Your task to perform on an android device: turn off translation in the chrome app Image 0: 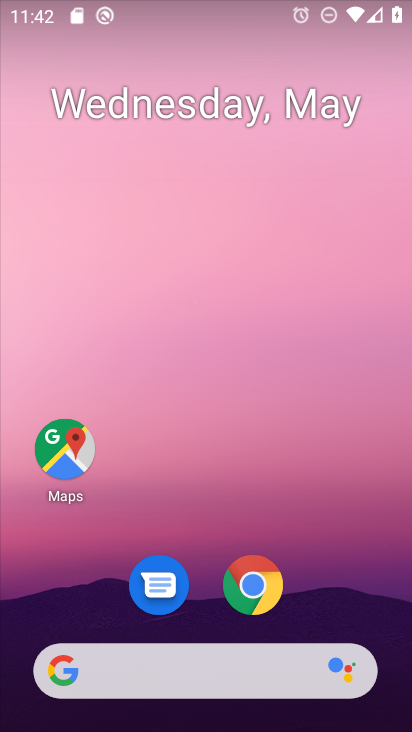
Step 0: click (248, 579)
Your task to perform on an android device: turn off translation in the chrome app Image 1: 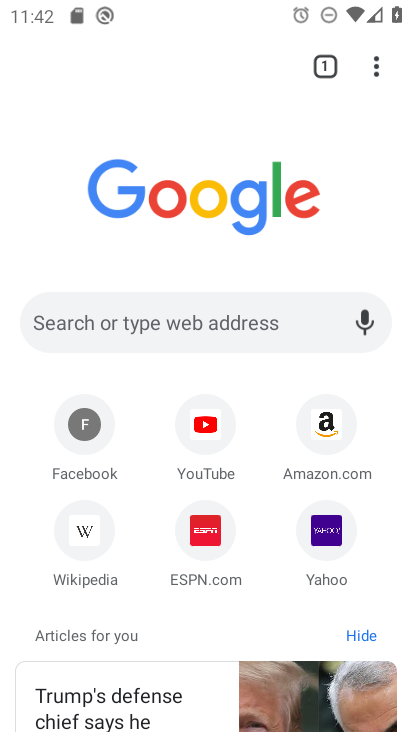
Step 1: click (373, 64)
Your task to perform on an android device: turn off translation in the chrome app Image 2: 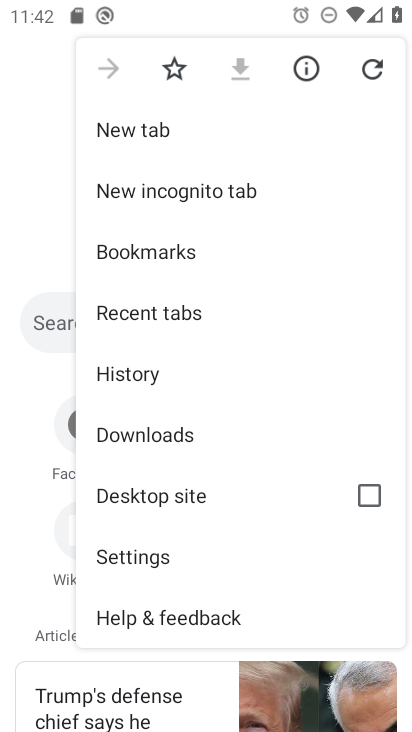
Step 2: click (175, 557)
Your task to perform on an android device: turn off translation in the chrome app Image 3: 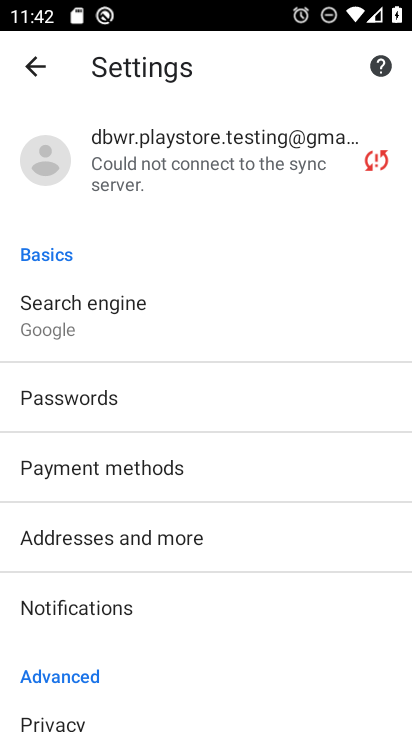
Step 3: drag from (268, 585) to (272, 273)
Your task to perform on an android device: turn off translation in the chrome app Image 4: 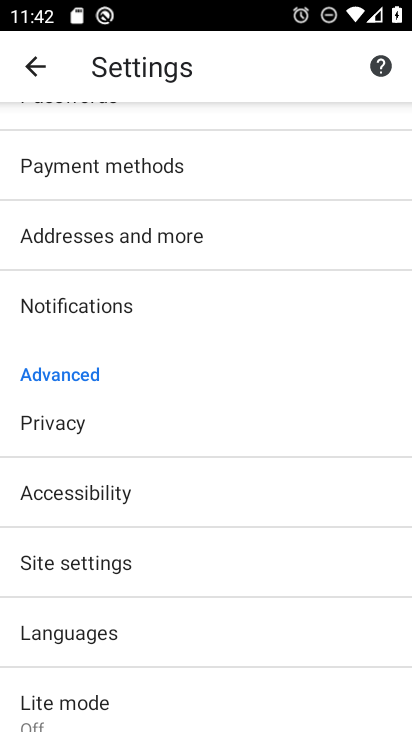
Step 4: click (225, 637)
Your task to perform on an android device: turn off translation in the chrome app Image 5: 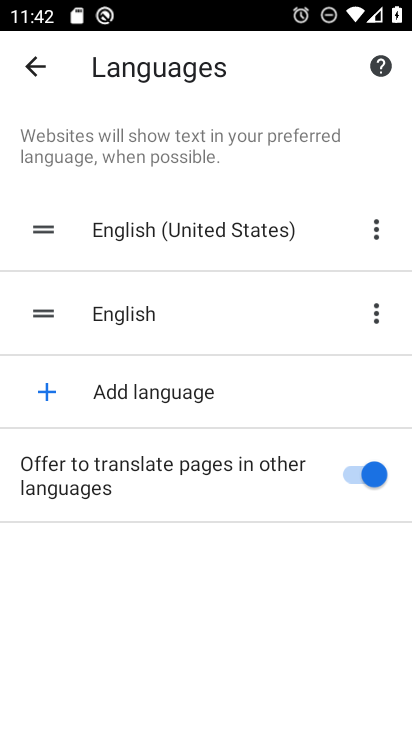
Step 5: click (366, 478)
Your task to perform on an android device: turn off translation in the chrome app Image 6: 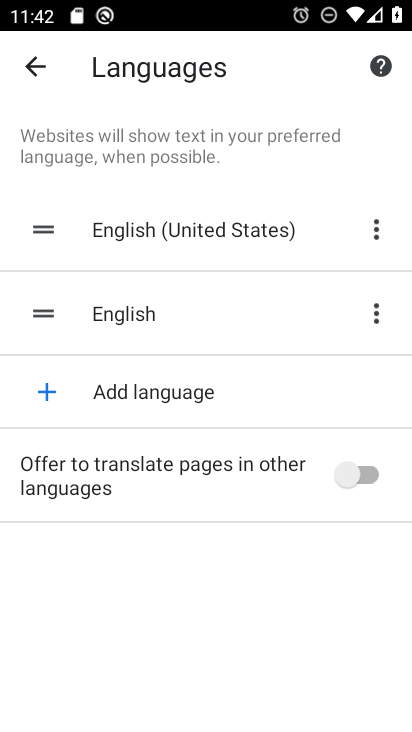
Step 6: task complete